Your task to perform on an android device: When is my next appointment? Image 0: 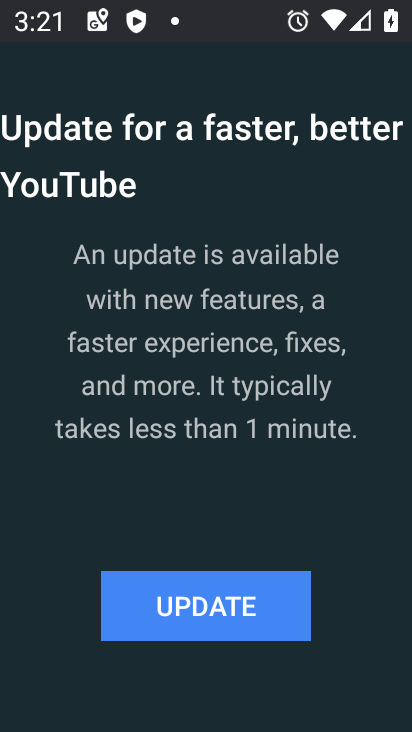
Step 0: press home button
Your task to perform on an android device: When is my next appointment? Image 1: 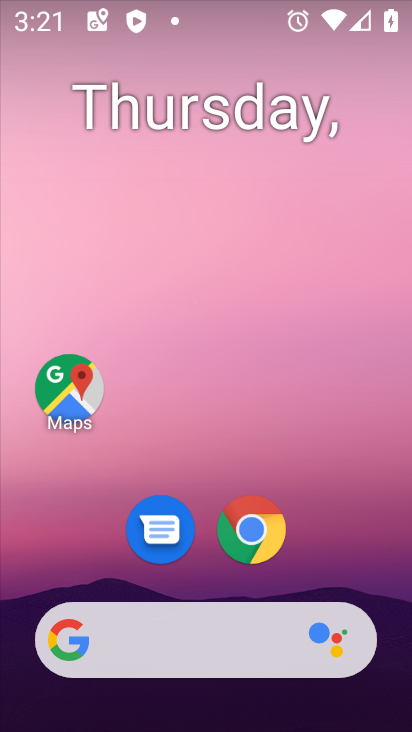
Step 1: drag from (332, 557) to (274, 48)
Your task to perform on an android device: When is my next appointment? Image 2: 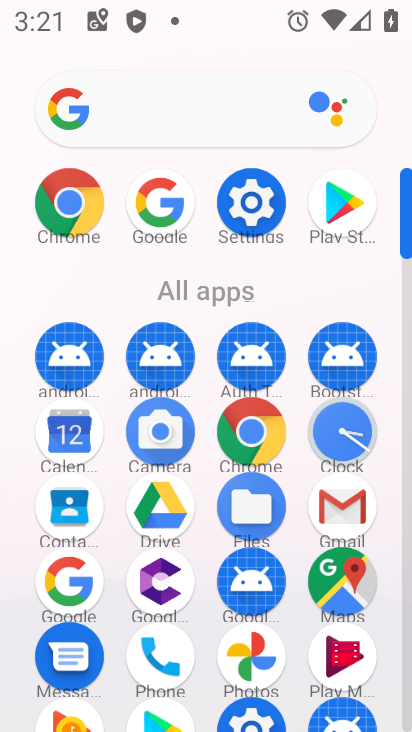
Step 2: click (73, 433)
Your task to perform on an android device: When is my next appointment? Image 3: 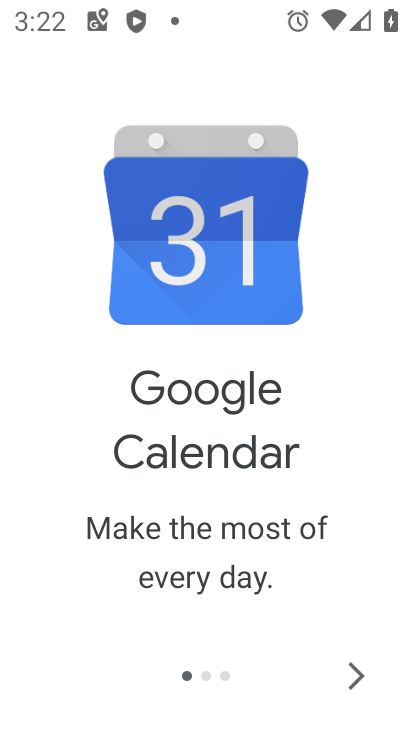
Step 3: click (357, 670)
Your task to perform on an android device: When is my next appointment? Image 4: 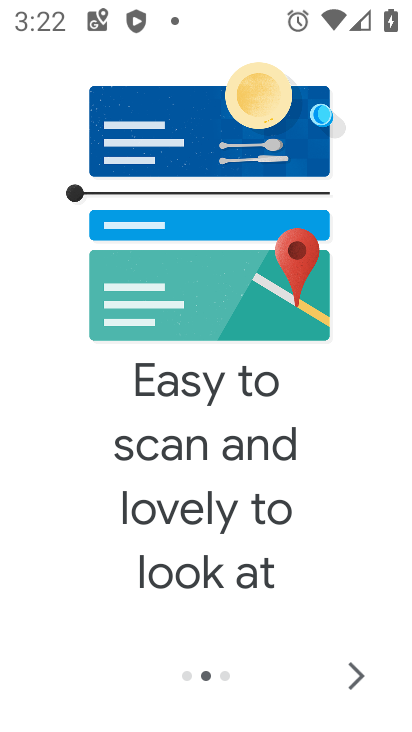
Step 4: click (363, 680)
Your task to perform on an android device: When is my next appointment? Image 5: 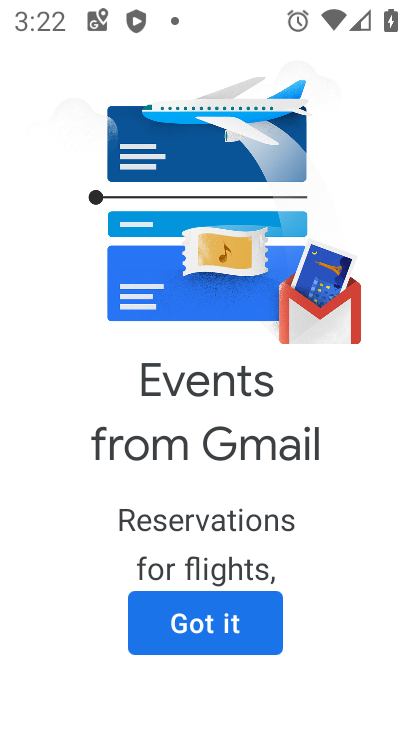
Step 5: click (237, 612)
Your task to perform on an android device: When is my next appointment? Image 6: 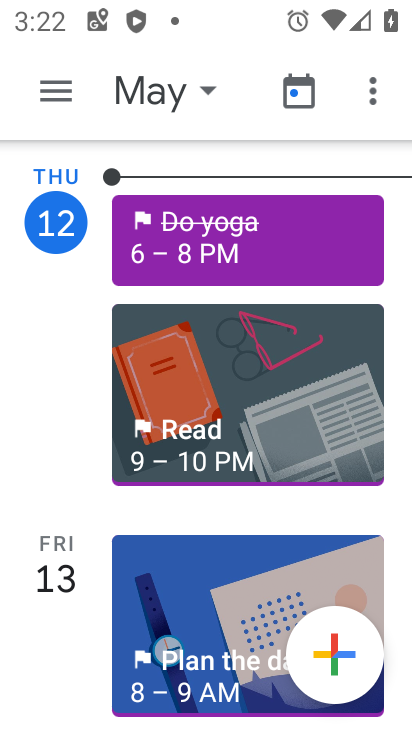
Step 6: click (204, 88)
Your task to perform on an android device: When is my next appointment? Image 7: 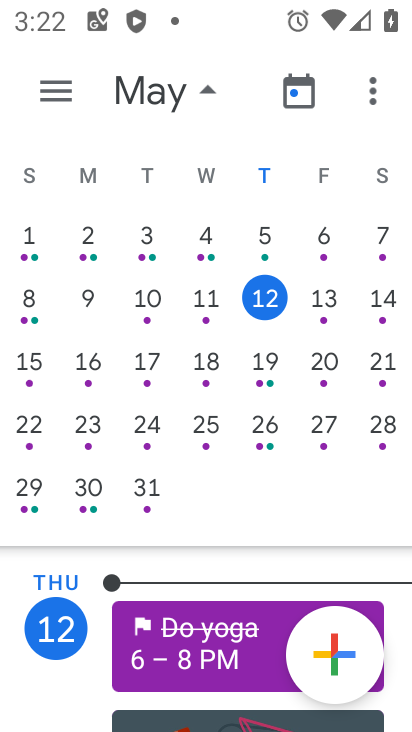
Step 7: click (328, 303)
Your task to perform on an android device: When is my next appointment? Image 8: 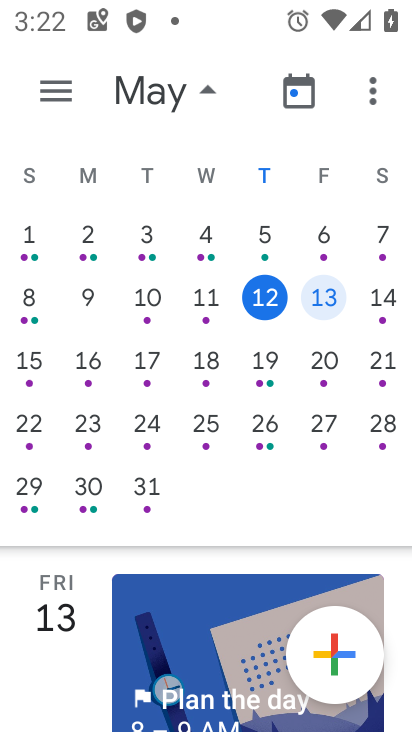
Step 8: click (52, 92)
Your task to perform on an android device: When is my next appointment? Image 9: 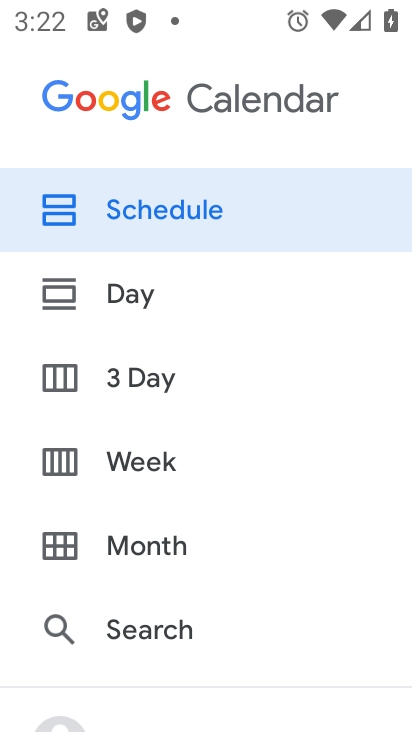
Step 9: click (108, 195)
Your task to perform on an android device: When is my next appointment? Image 10: 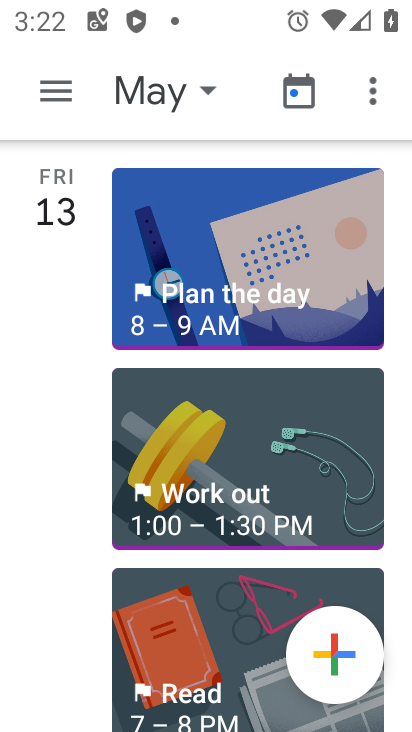
Step 10: task complete